Your task to perform on an android device: read, delete, or share a saved page in the chrome app Image 0: 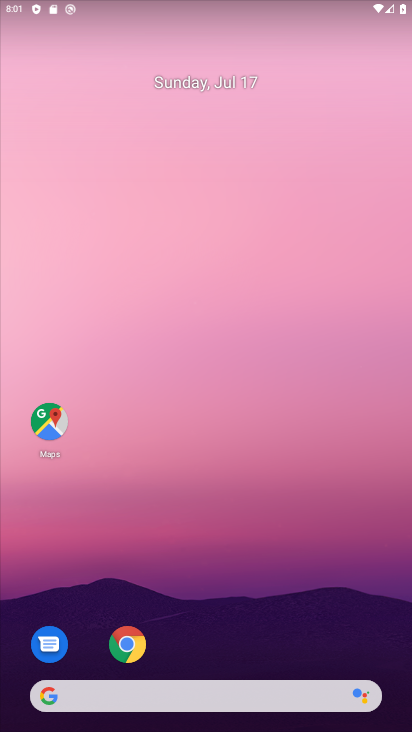
Step 0: drag from (251, 676) to (283, 101)
Your task to perform on an android device: read, delete, or share a saved page in the chrome app Image 1: 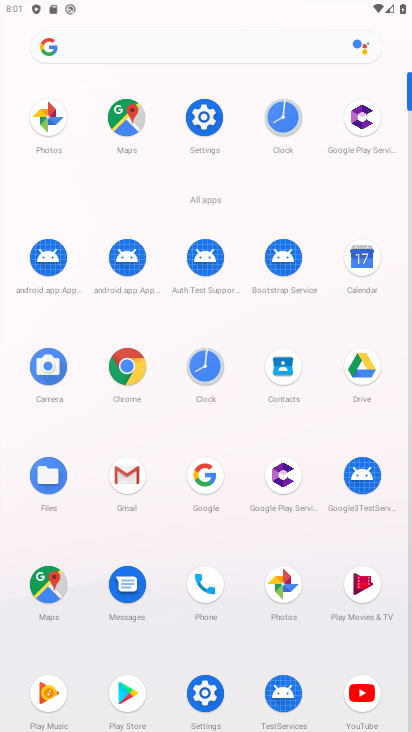
Step 1: click (126, 363)
Your task to perform on an android device: read, delete, or share a saved page in the chrome app Image 2: 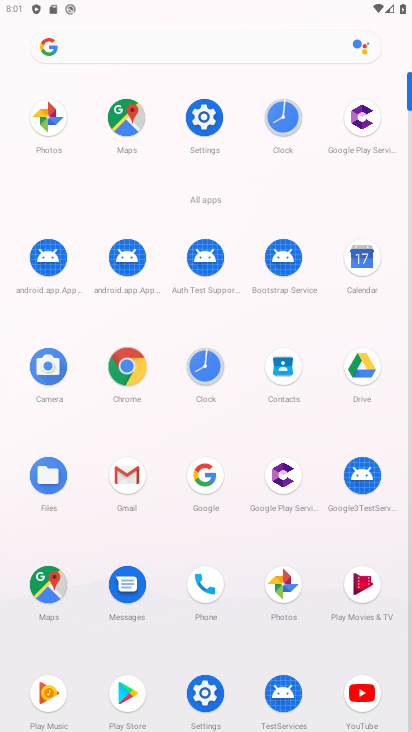
Step 2: click (130, 360)
Your task to perform on an android device: read, delete, or share a saved page in the chrome app Image 3: 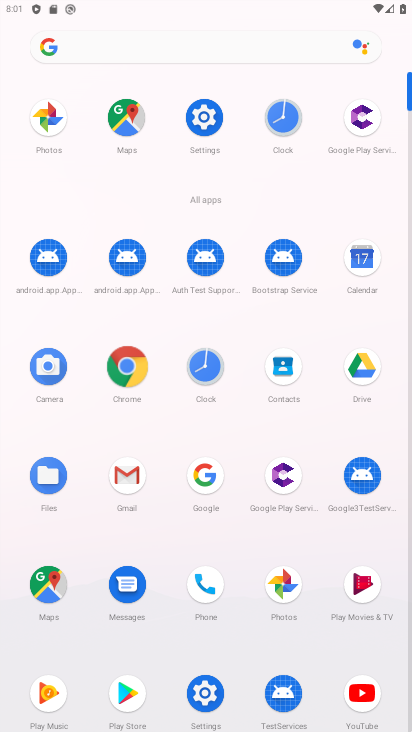
Step 3: click (136, 356)
Your task to perform on an android device: read, delete, or share a saved page in the chrome app Image 4: 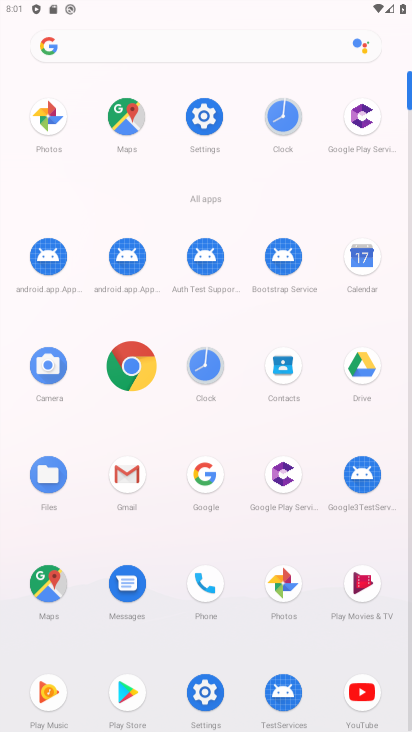
Step 4: click (139, 352)
Your task to perform on an android device: read, delete, or share a saved page in the chrome app Image 5: 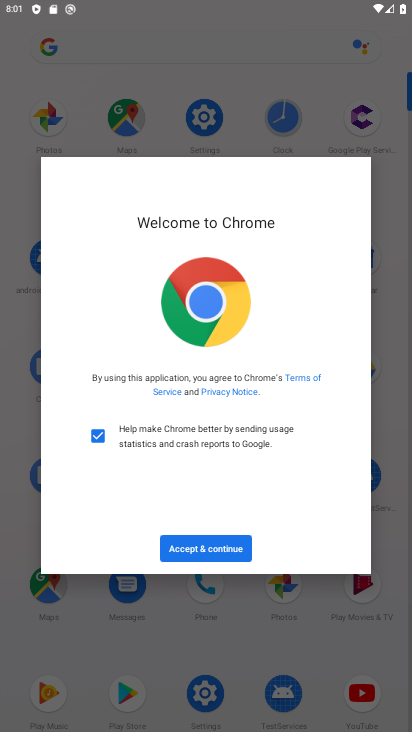
Step 5: click (207, 557)
Your task to perform on an android device: read, delete, or share a saved page in the chrome app Image 6: 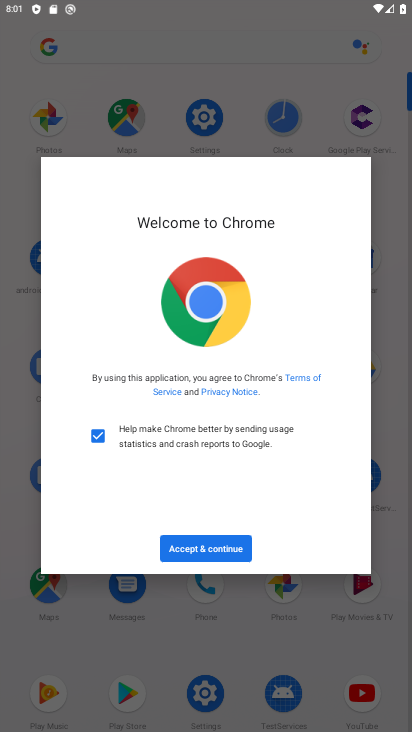
Step 6: click (202, 557)
Your task to perform on an android device: read, delete, or share a saved page in the chrome app Image 7: 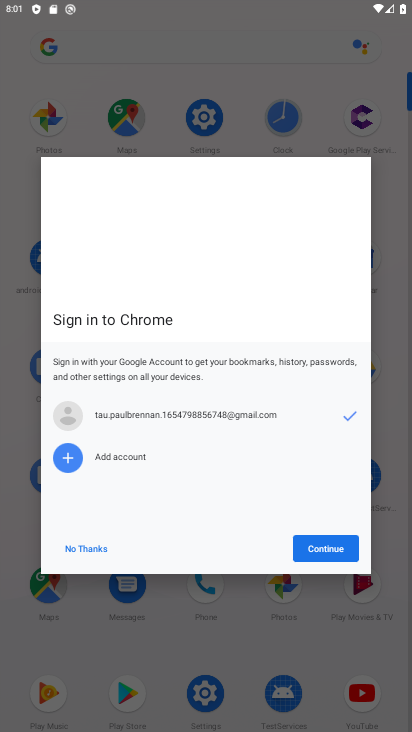
Step 7: click (201, 559)
Your task to perform on an android device: read, delete, or share a saved page in the chrome app Image 8: 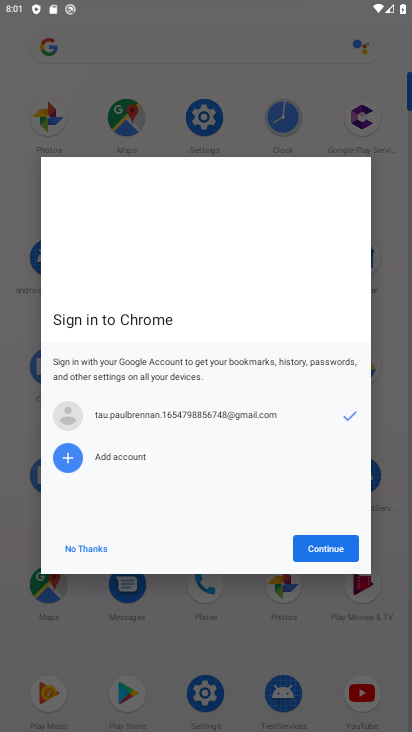
Step 8: click (201, 559)
Your task to perform on an android device: read, delete, or share a saved page in the chrome app Image 9: 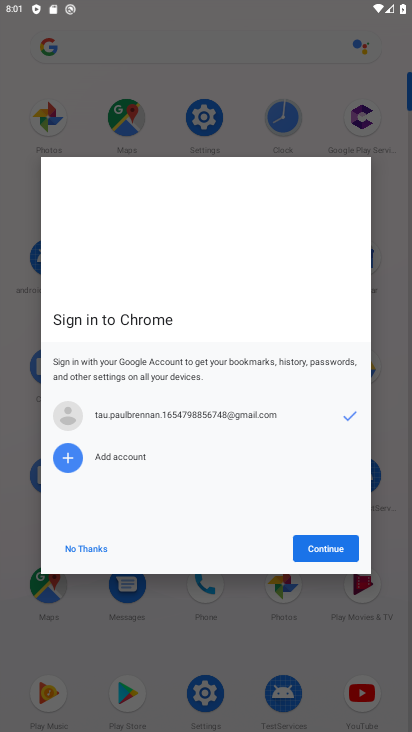
Step 9: click (328, 550)
Your task to perform on an android device: read, delete, or share a saved page in the chrome app Image 10: 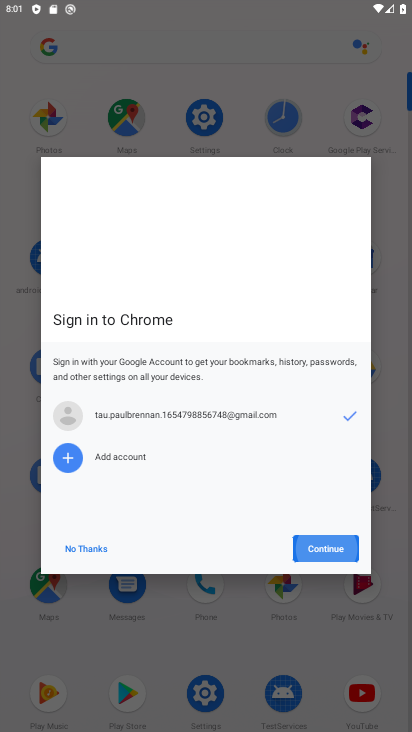
Step 10: click (332, 554)
Your task to perform on an android device: read, delete, or share a saved page in the chrome app Image 11: 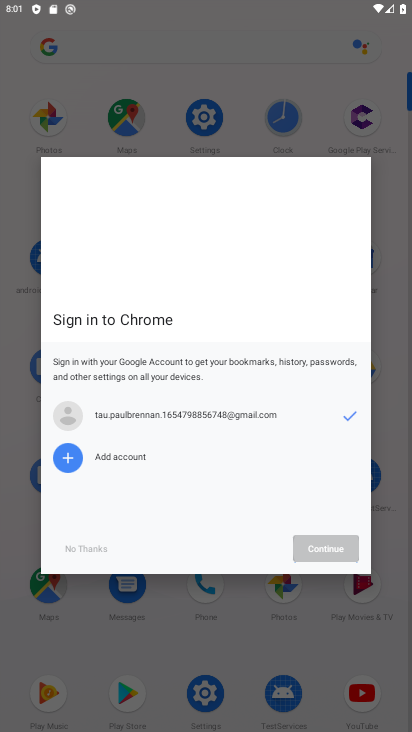
Step 11: click (334, 555)
Your task to perform on an android device: read, delete, or share a saved page in the chrome app Image 12: 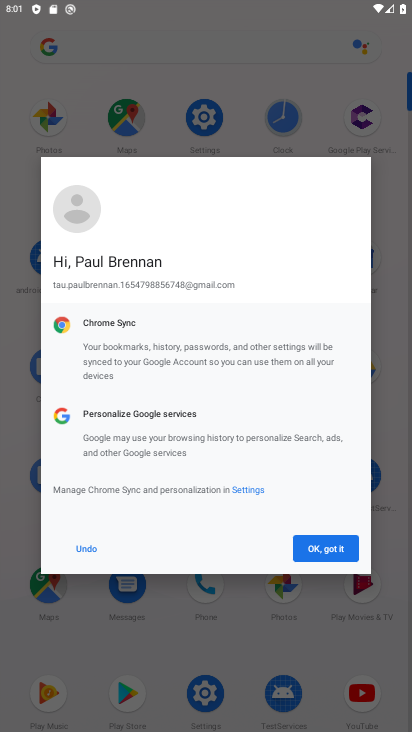
Step 12: click (323, 553)
Your task to perform on an android device: read, delete, or share a saved page in the chrome app Image 13: 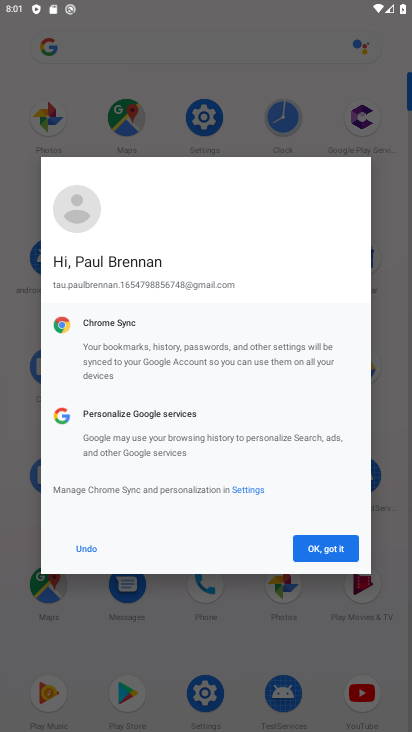
Step 13: click (322, 550)
Your task to perform on an android device: read, delete, or share a saved page in the chrome app Image 14: 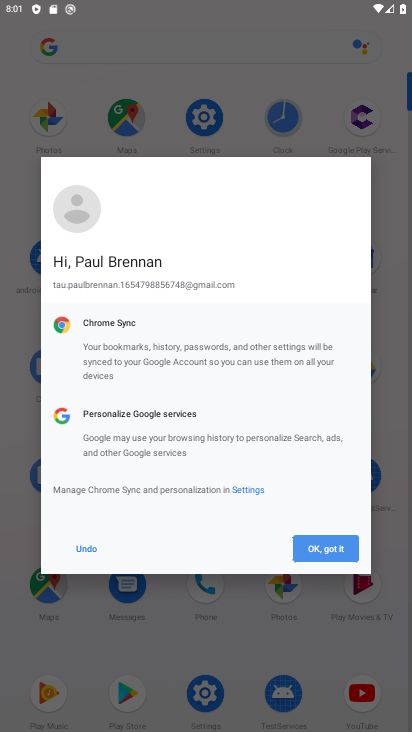
Step 14: click (322, 550)
Your task to perform on an android device: read, delete, or share a saved page in the chrome app Image 15: 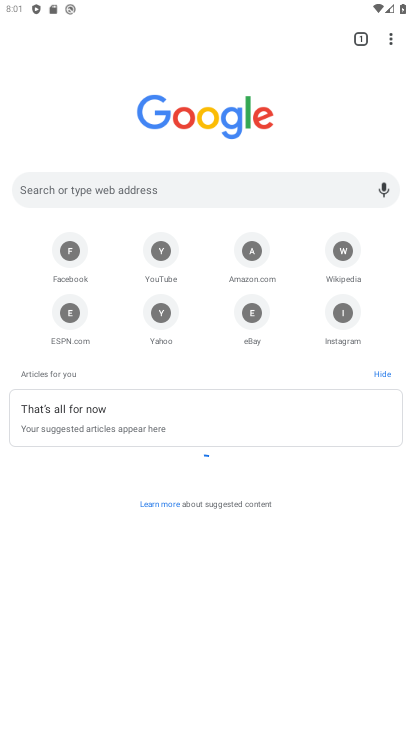
Step 15: drag from (389, 34) to (243, 250)
Your task to perform on an android device: read, delete, or share a saved page in the chrome app Image 16: 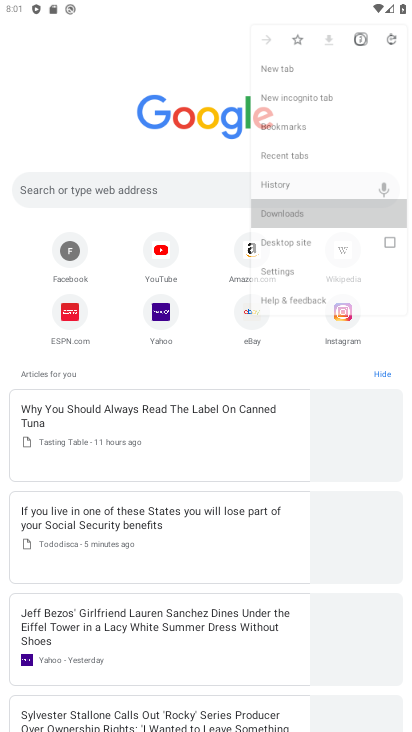
Step 16: click (244, 254)
Your task to perform on an android device: read, delete, or share a saved page in the chrome app Image 17: 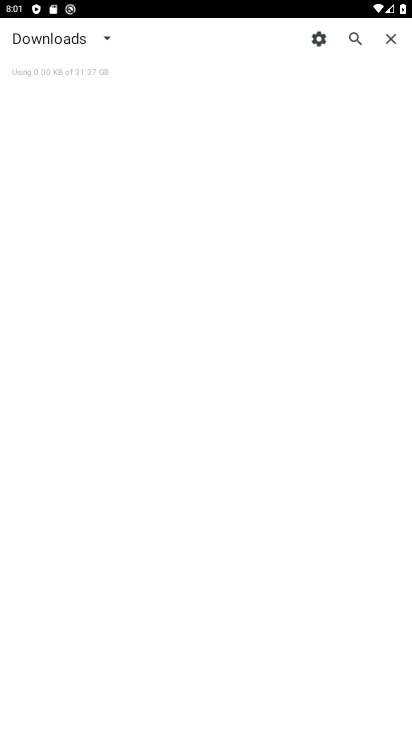
Step 17: click (105, 32)
Your task to perform on an android device: read, delete, or share a saved page in the chrome app Image 18: 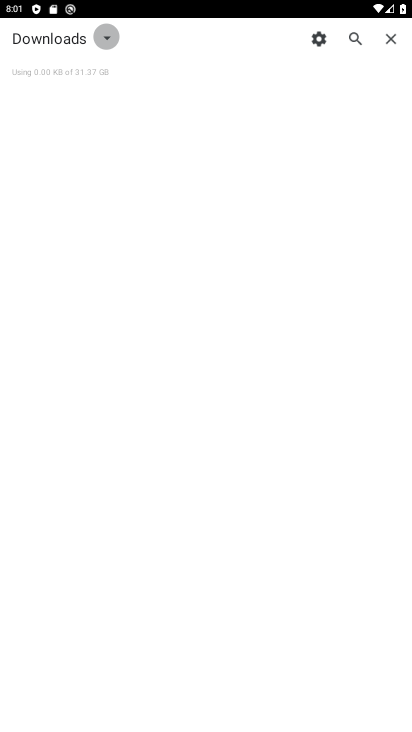
Step 18: click (104, 31)
Your task to perform on an android device: read, delete, or share a saved page in the chrome app Image 19: 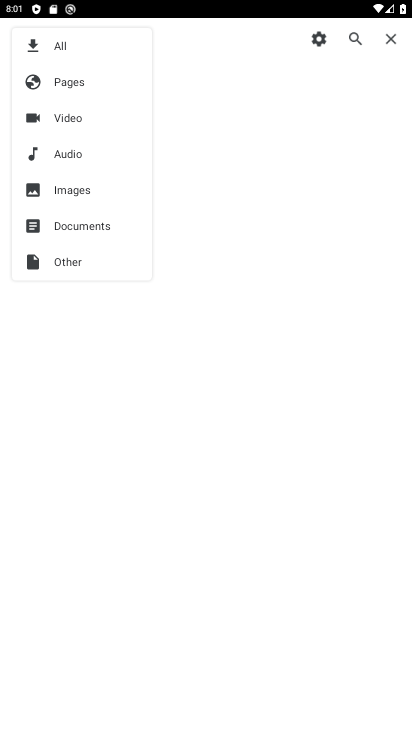
Step 19: click (70, 129)
Your task to perform on an android device: read, delete, or share a saved page in the chrome app Image 20: 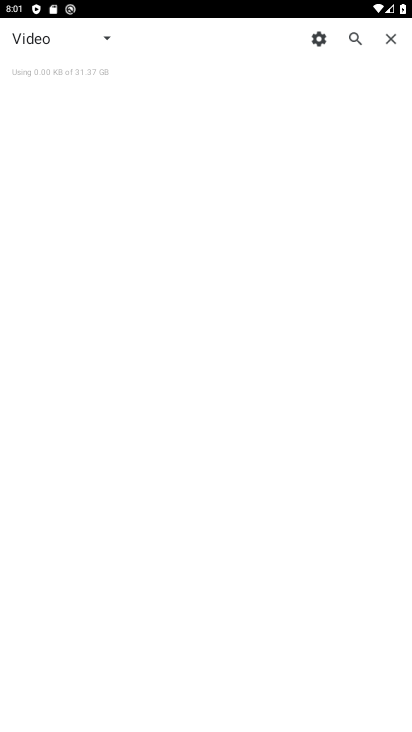
Step 20: click (70, 118)
Your task to perform on an android device: read, delete, or share a saved page in the chrome app Image 21: 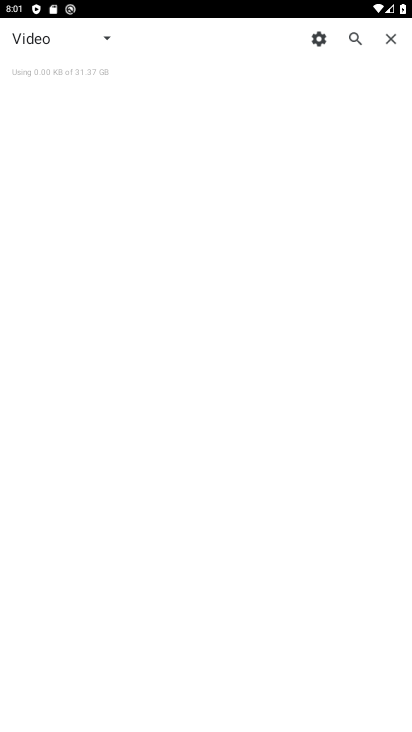
Step 21: task complete